Your task to perform on an android device: toggle airplane mode Image 0: 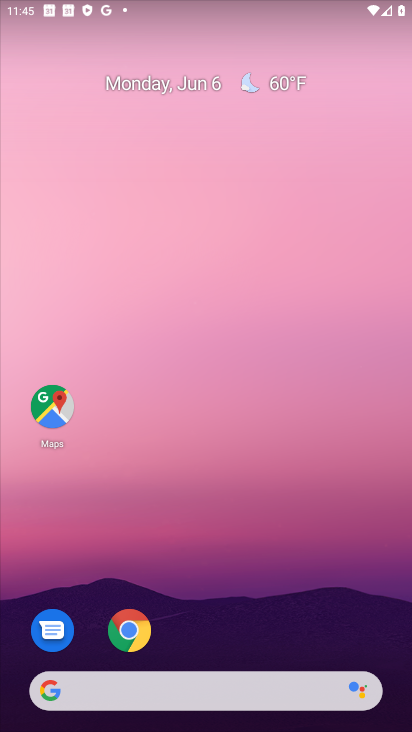
Step 0: drag from (234, 11) to (278, 555)
Your task to perform on an android device: toggle airplane mode Image 1: 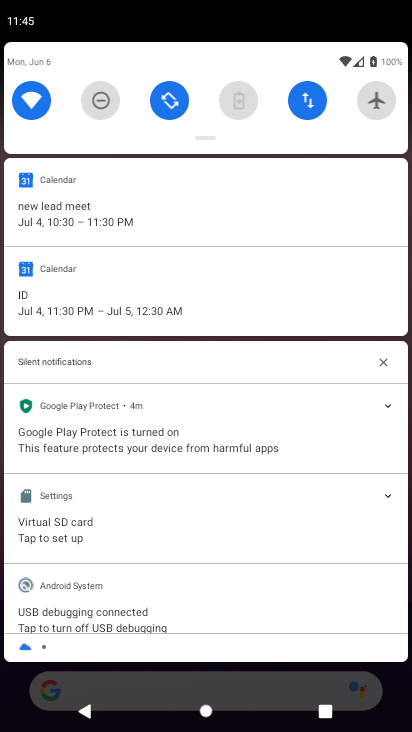
Step 1: click (362, 96)
Your task to perform on an android device: toggle airplane mode Image 2: 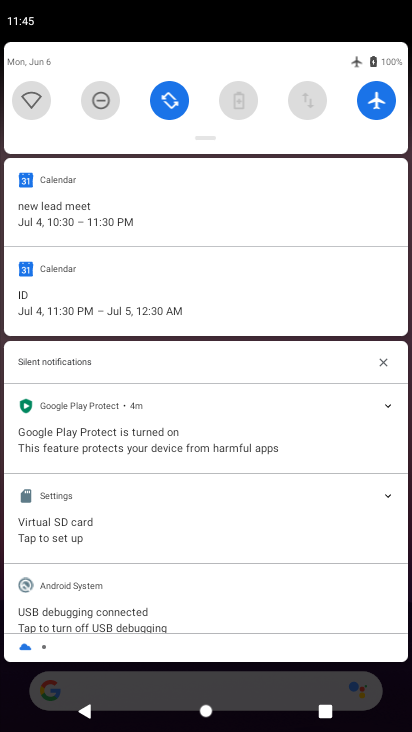
Step 2: task complete